Your task to perform on an android device: Turn on the flashlight Image 0: 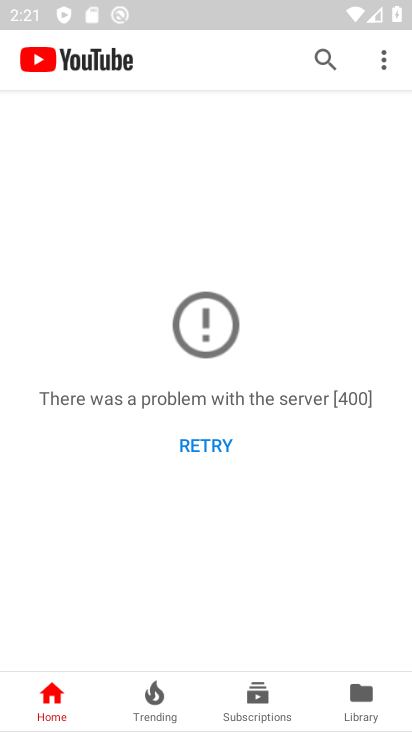
Step 0: drag from (359, 15) to (293, 497)
Your task to perform on an android device: Turn on the flashlight Image 1: 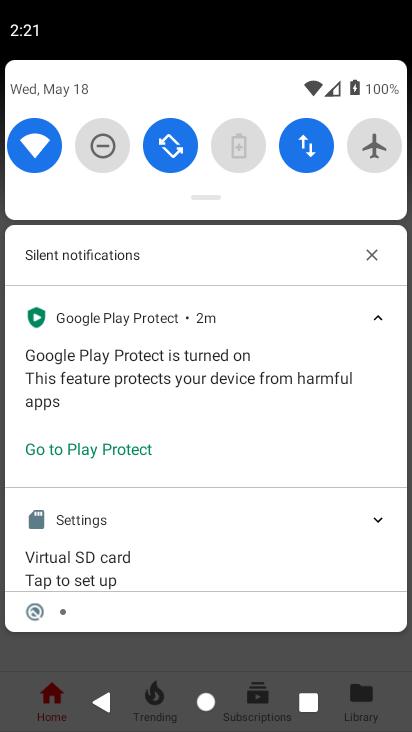
Step 1: drag from (273, 188) to (251, 511)
Your task to perform on an android device: Turn on the flashlight Image 2: 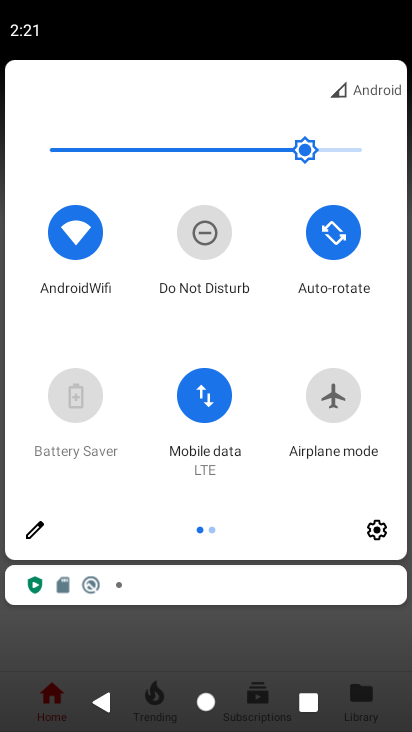
Step 2: click (45, 533)
Your task to perform on an android device: Turn on the flashlight Image 3: 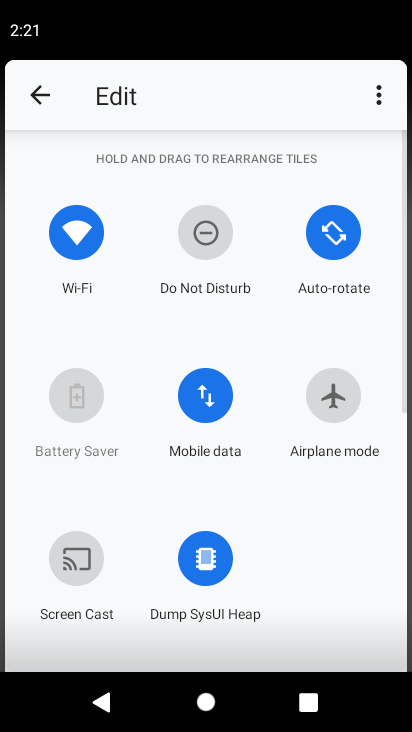
Step 3: task complete